Your task to perform on an android device: Turn off the flashlight Image 0: 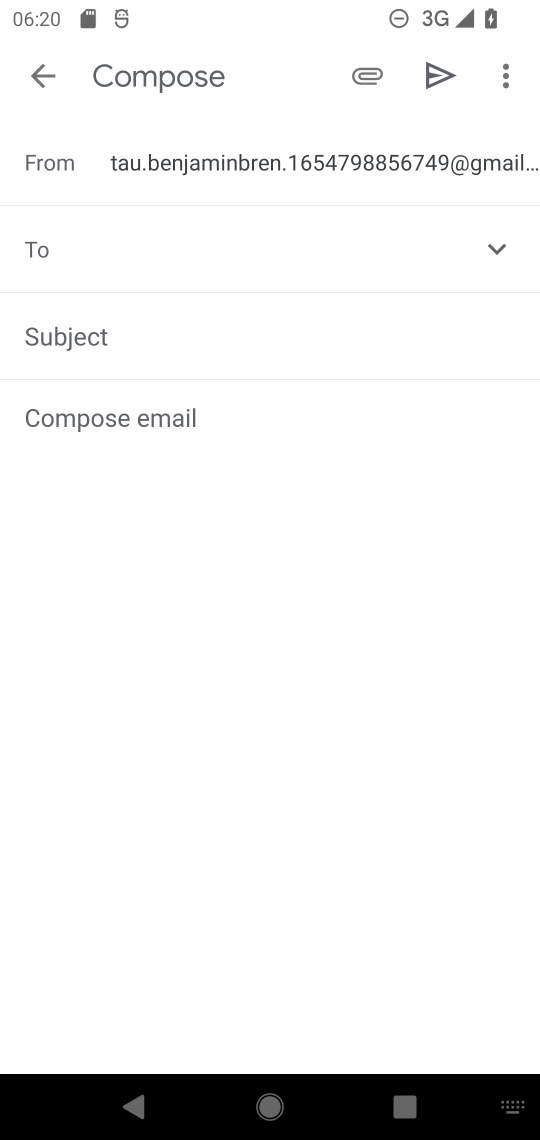
Step 0: press home button
Your task to perform on an android device: Turn off the flashlight Image 1: 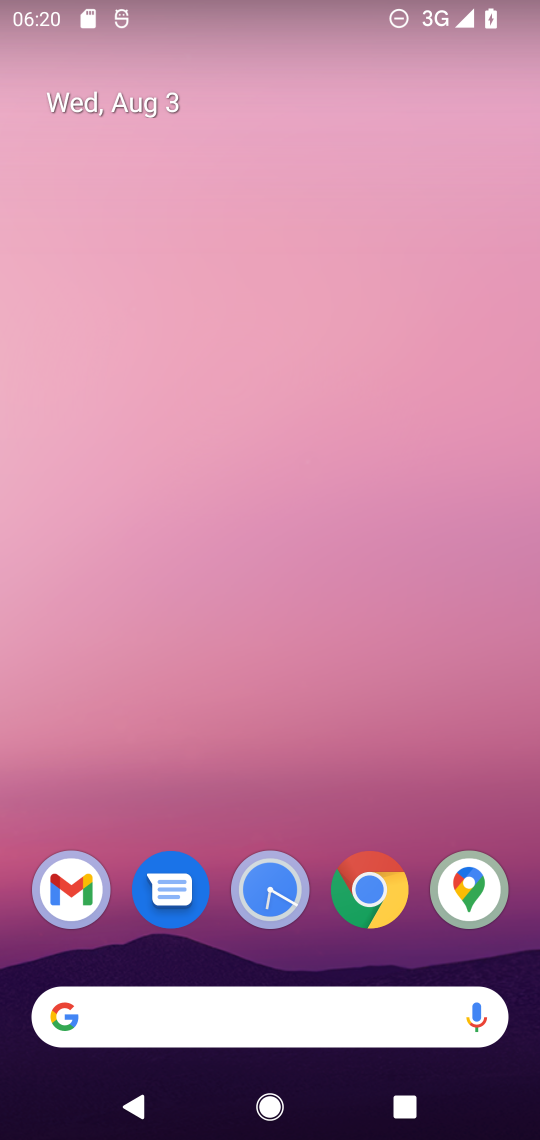
Step 1: drag from (326, 757) to (349, 0)
Your task to perform on an android device: Turn off the flashlight Image 2: 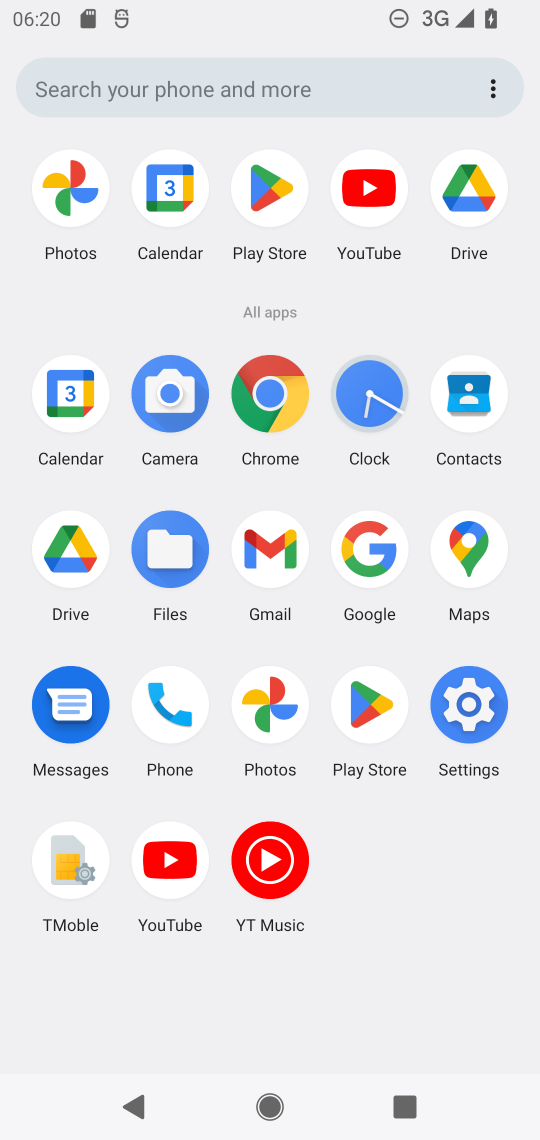
Step 2: click (460, 700)
Your task to perform on an android device: Turn off the flashlight Image 3: 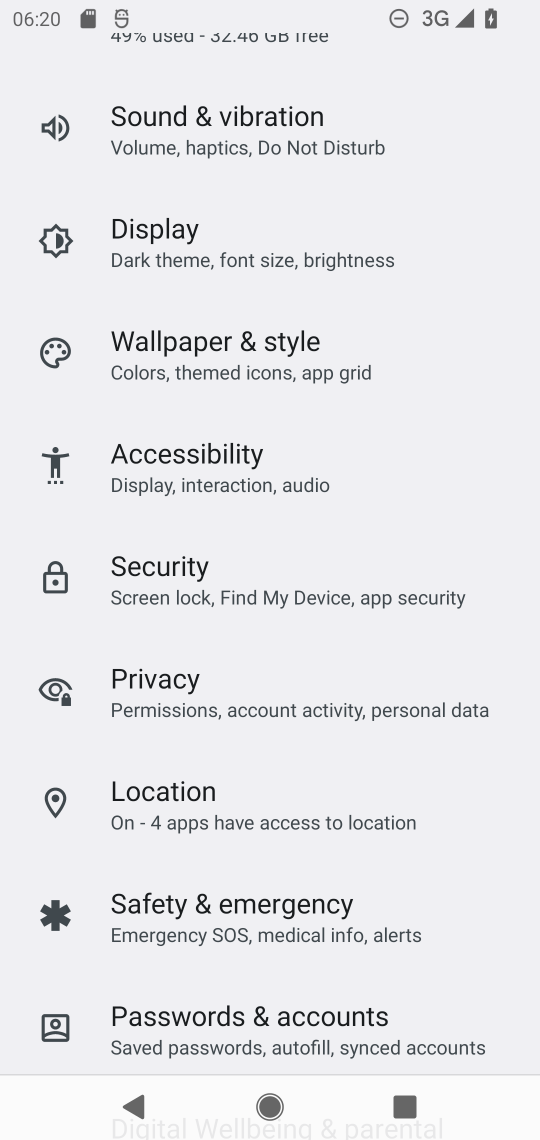
Step 3: drag from (363, 273) to (343, 932)
Your task to perform on an android device: Turn off the flashlight Image 4: 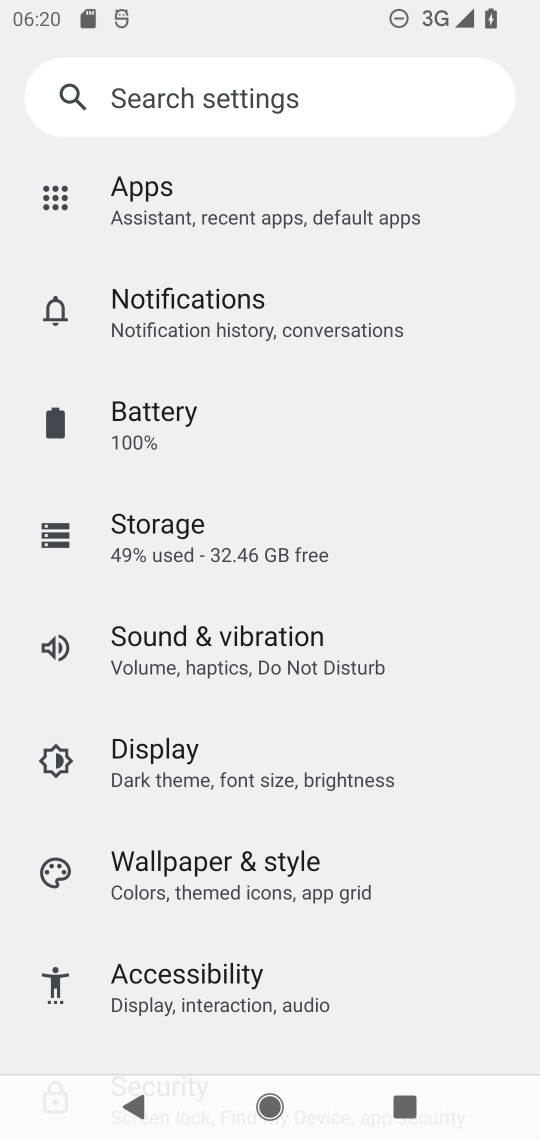
Step 4: click (336, 84)
Your task to perform on an android device: Turn off the flashlight Image 5: 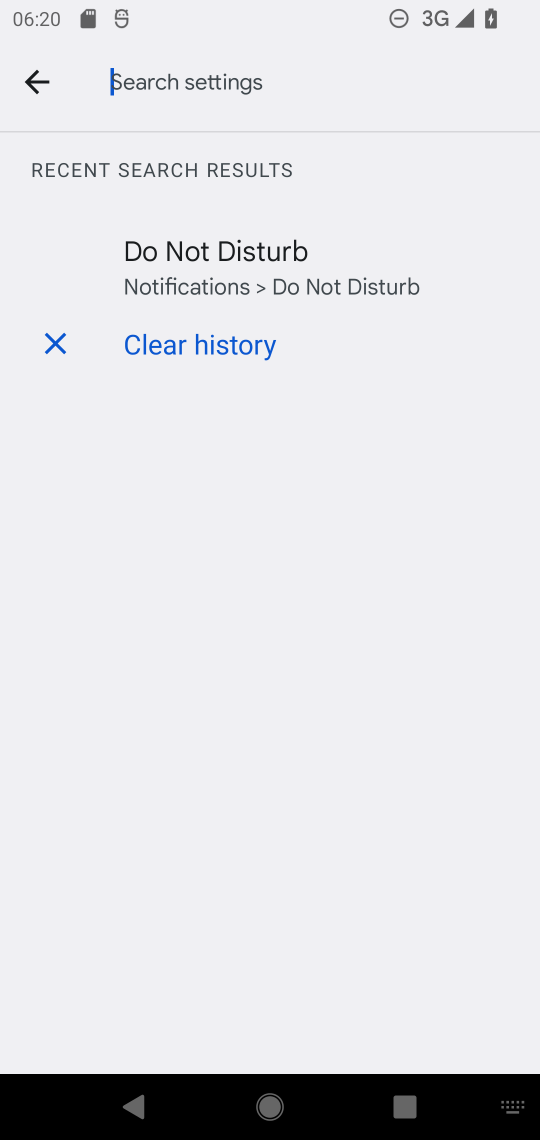
Step 5: type "flashlight"
Your task to perform on an android device: Turn off the flashlight Image 6: 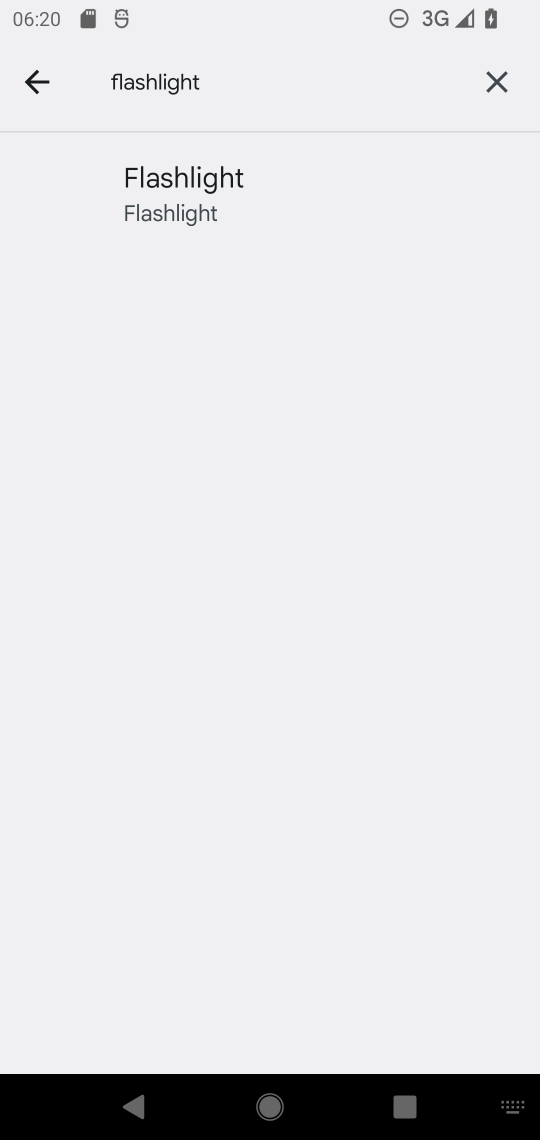
Step 6: click (206, 176)
Your task to perform on an android device: Turn off the flashlight Image 7: 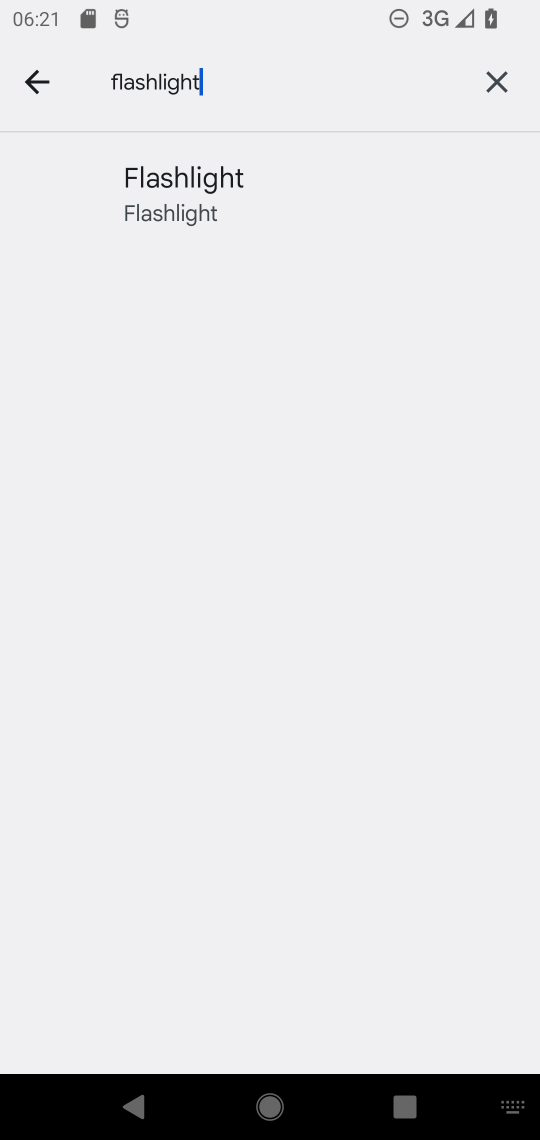
Step 7: click (189, 205)
Your task to perform on an android device: Turn off the flashlight Image 8: 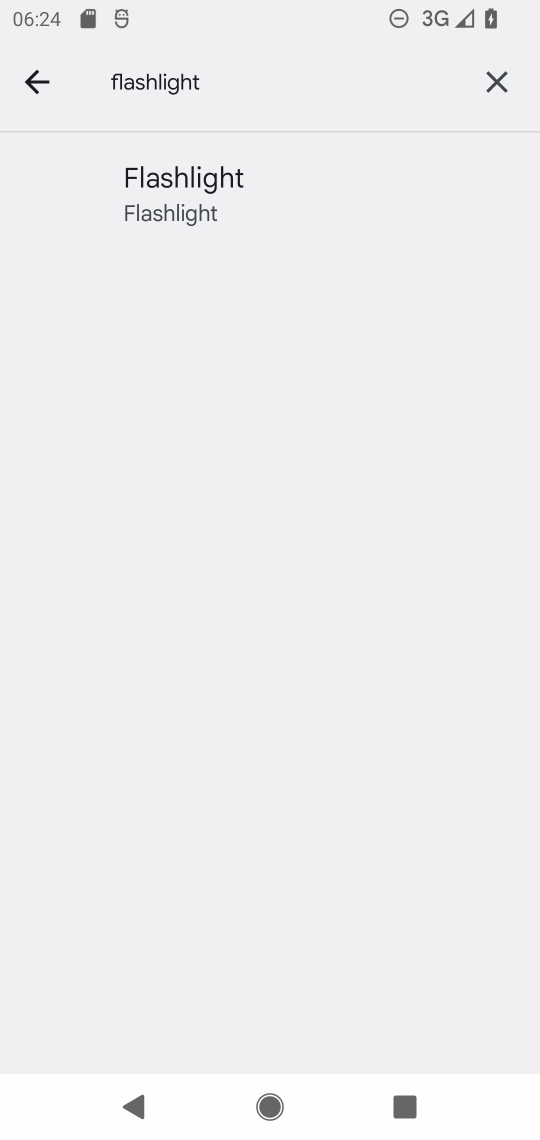
Step 8: task complete